Your task to perform on an android device: Go to settings Image 0: 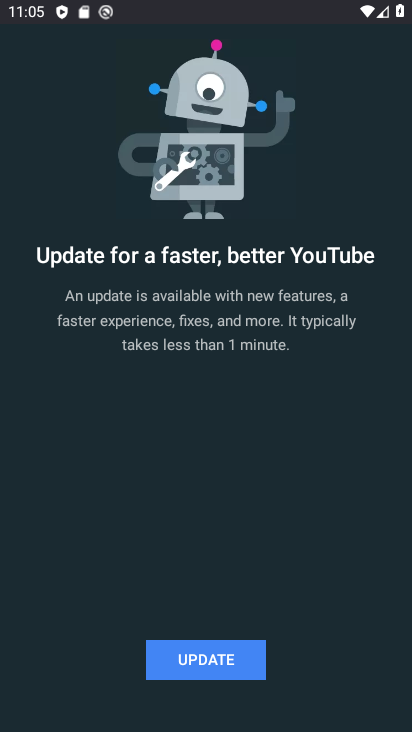
Step 0: press back button
Your task to perform on an android device: Go to settings Image 1: 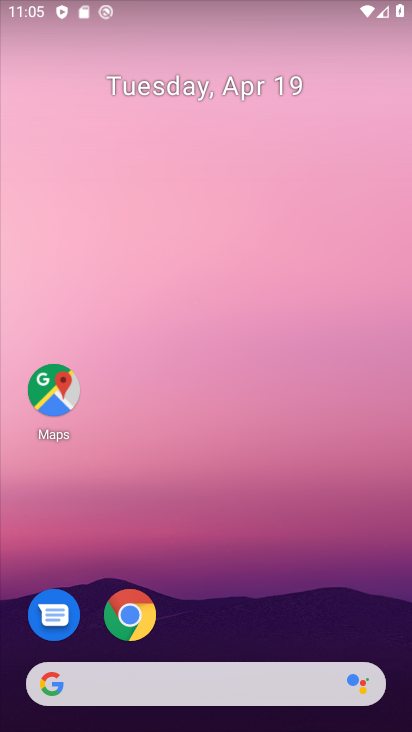
Step 1: drag from (238, 658) to (221, 185)
Your task to perform on an android device: Go to settings Image 2: 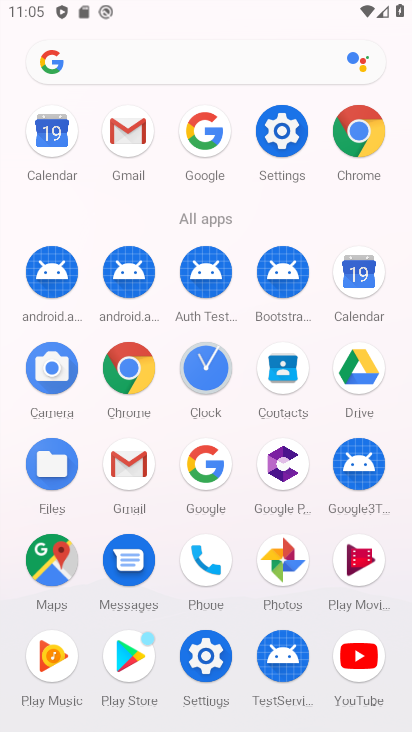
Step 2: click (280, 134)
Your task to perform on an android device: Go to settings Image 3: 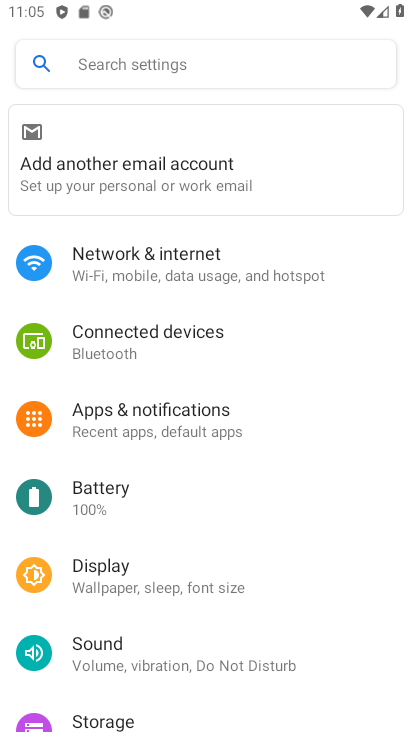
Step 3: task complete